Your task to perform on an android device: turn on location history Image 0: 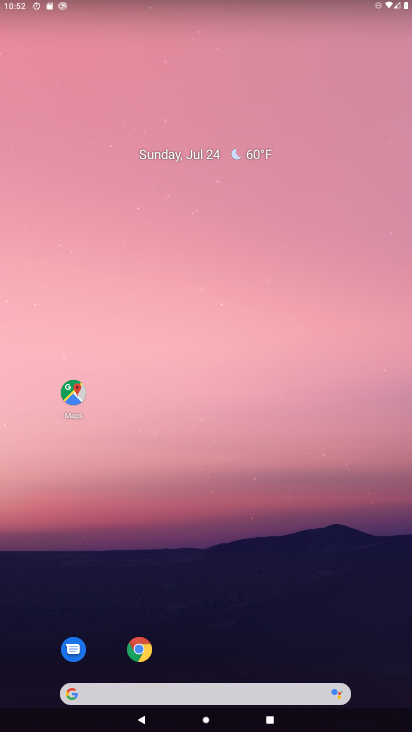
Step 0: drag from (247, 557) to (248, 155)
Your task to perform on an android device: turn on location history Image 1: 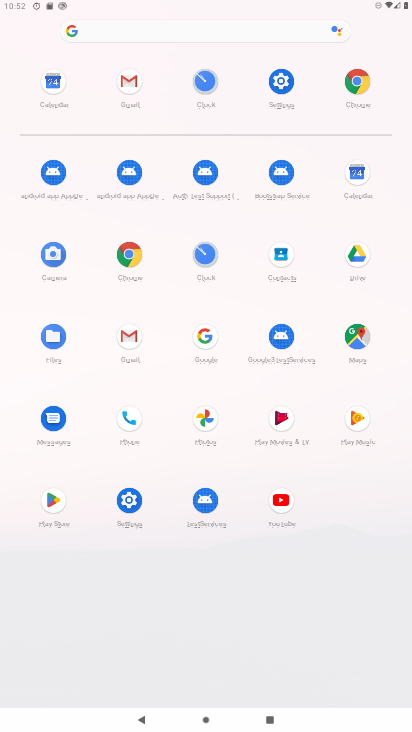
Step 1: click (287, 78)
Your task to perform on an android device: turn on location history Image 2: 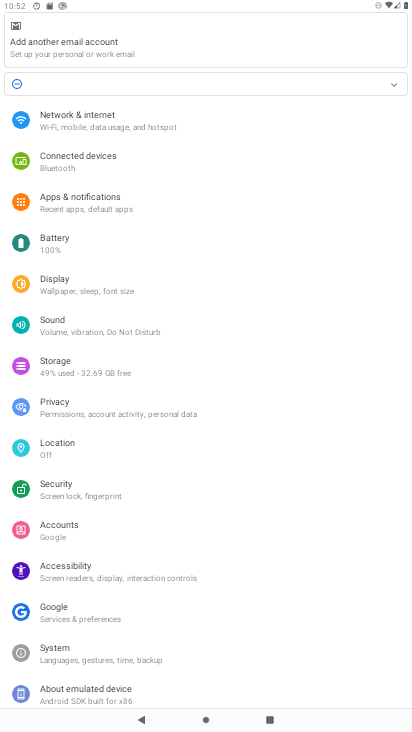
Step 2: click (61, 453)
Your task to perform on an android device: turn on location history Image 3: 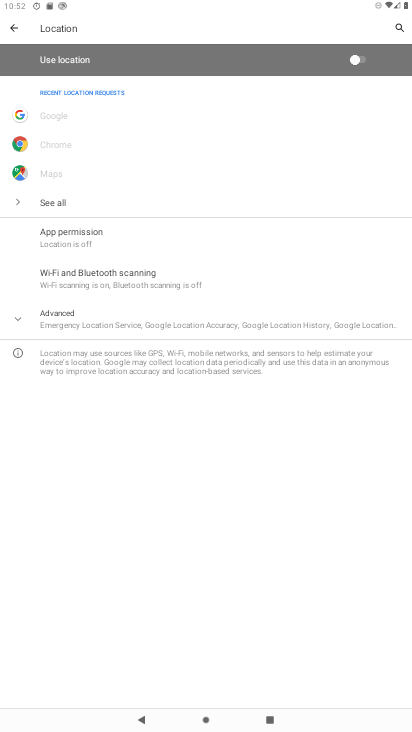
Step 3: click (88, 331)
Your task to perform on an android device: turn on location history Image 4: 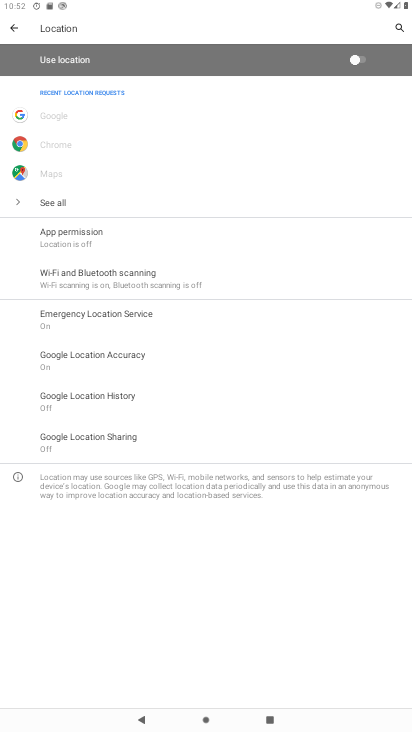
Step 4: click (118, 401)
Your task to perform on an android device: turn on location history Image 5: 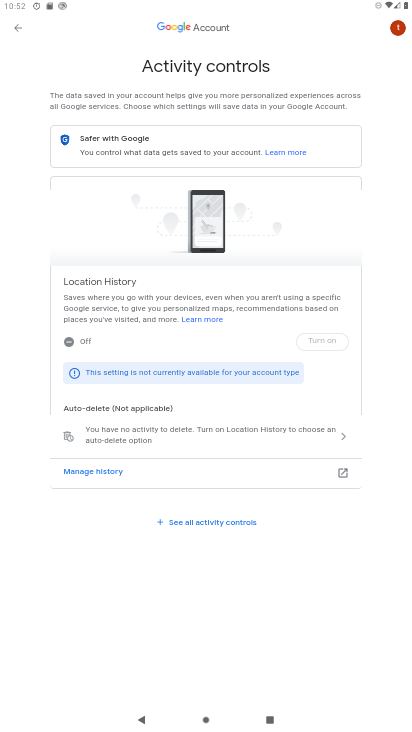
Step 5: click (319, 339)
Your task to perform on an android device: turn on location history Image 6: 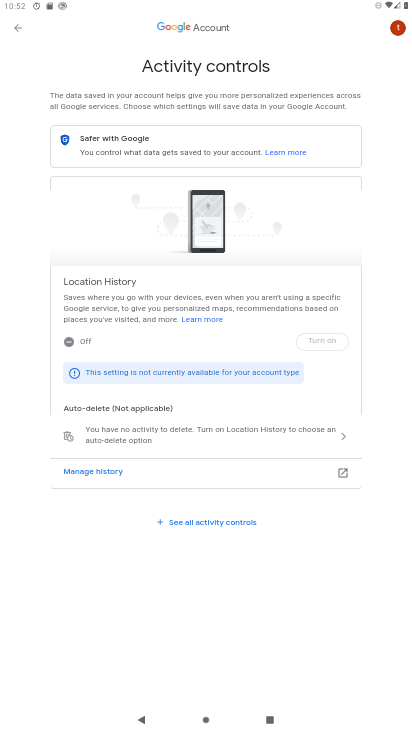
Step 6: click (319, 340)
Your task to perform on an android device: turn on location history Image 7: 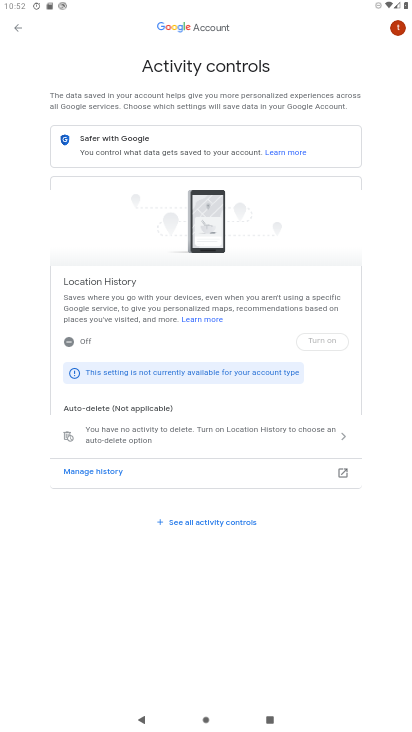
Step 7: task complete